Your task to perform on an android device: Turn off the flashlight Image 0: 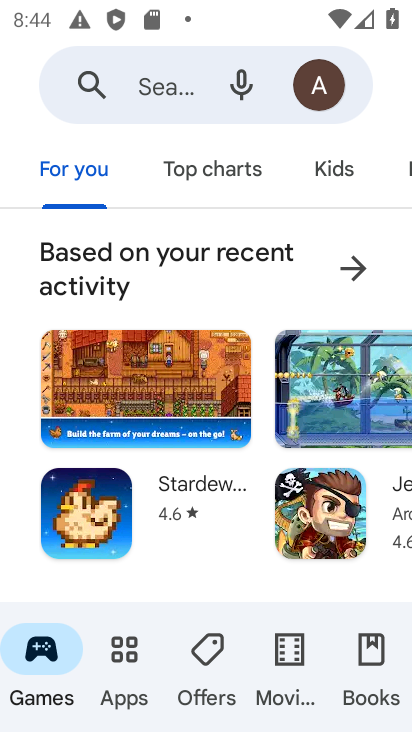
Step 0: drag from (155, 4) to (194, 490)
Your task to perform on an android device: Turn off the flashlight Image 1: 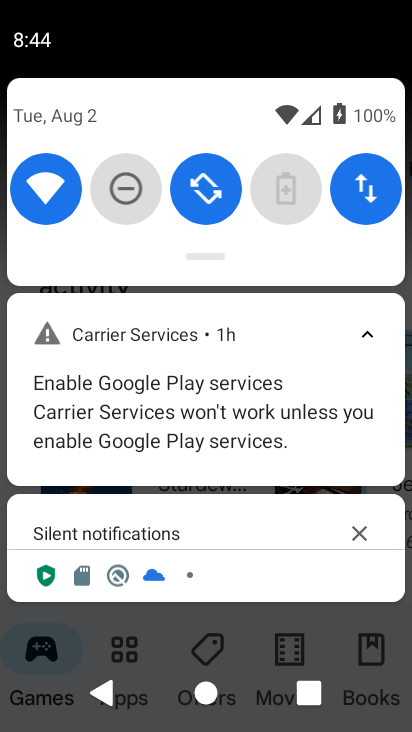
Step 1: drag from (257, 180) to (257, 579)
Your task to perform on an android device: Turn off the flashlight Image 2: 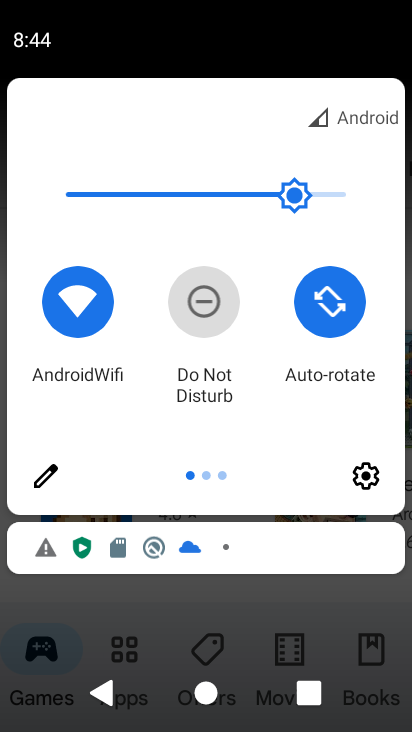
Step 2: drag from (358, 268) to (33, 303)
Your task to perform on an android device: Turn off the flashlight Image 3: 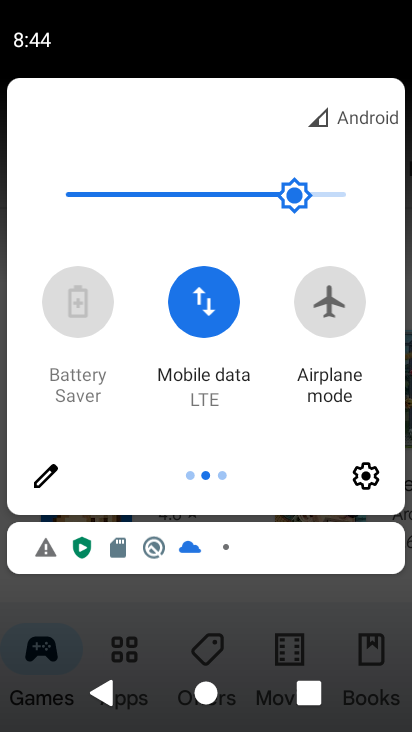
Step 3: drag from (329, 306) to (7, 391)
Your task to perform on an android device: Turn off the flashlight Image 4: 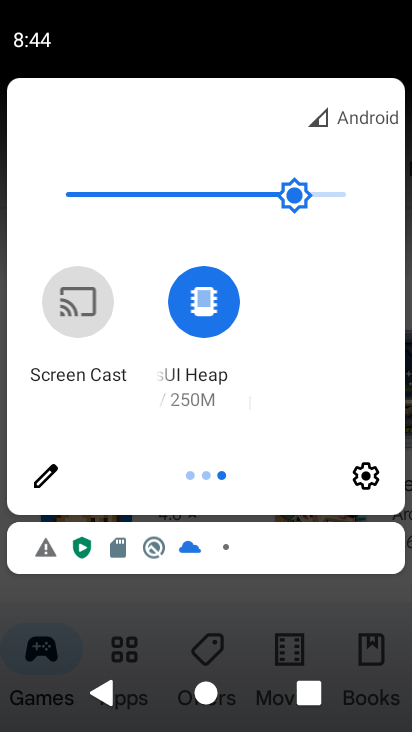
Step 4: click (47, 484)
Your task to perform on an android device: Turn off the flashlight Image 5: 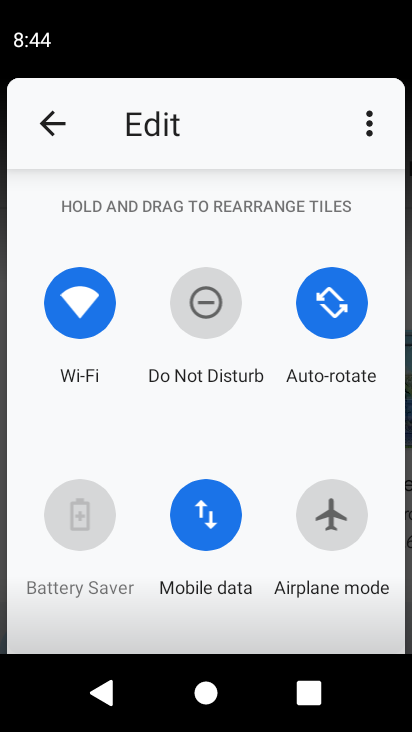
Step 5: task complete